Your task to perform on an android device: toggle improve location accuracy Image 0: 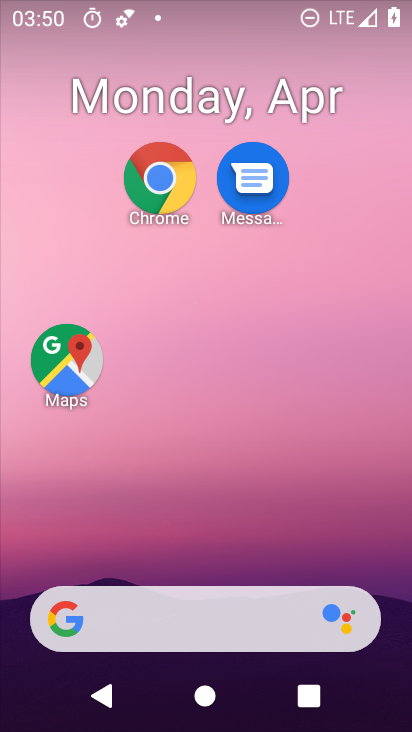
Step 0: drag from (246, 506) to (351, 1)
Your task to perform on an android device: toggle improve location accuracy Image 1: 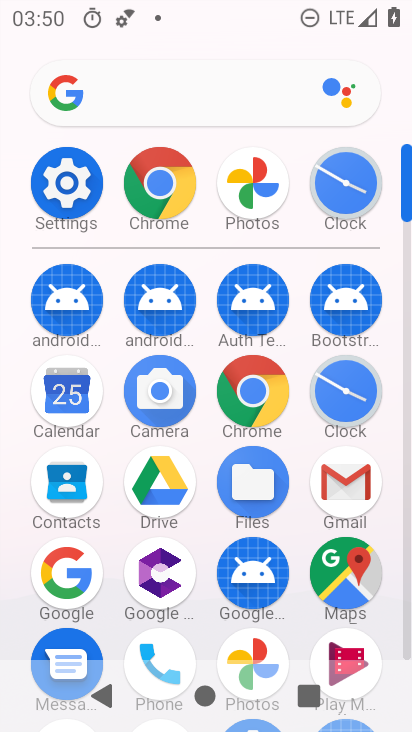
Step 1: drag from (284, 631) to (300, 53)
Your task to perform on an android device: toggle improve location accuracy Image 2: 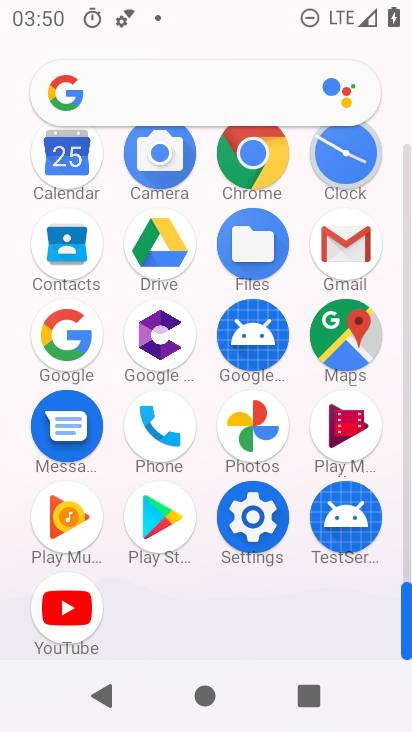
Step 2: click (263, 510)
Your task to perform on an android device: toggle improve location accuracy Image 3: 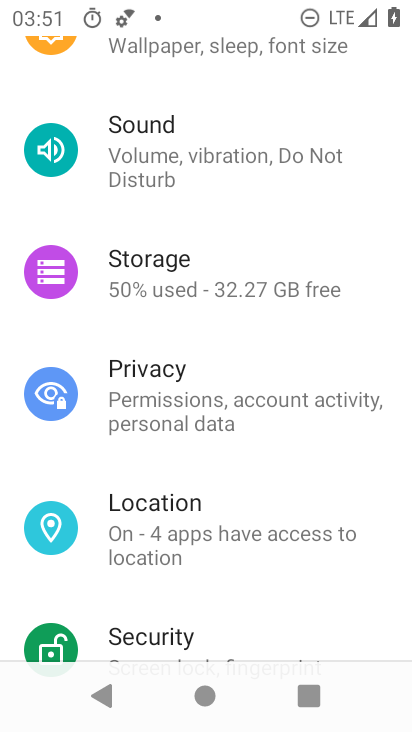
Step 3: click (235, 532)
Your task to perform on an android device: toggle improve location accuracy Image 4: 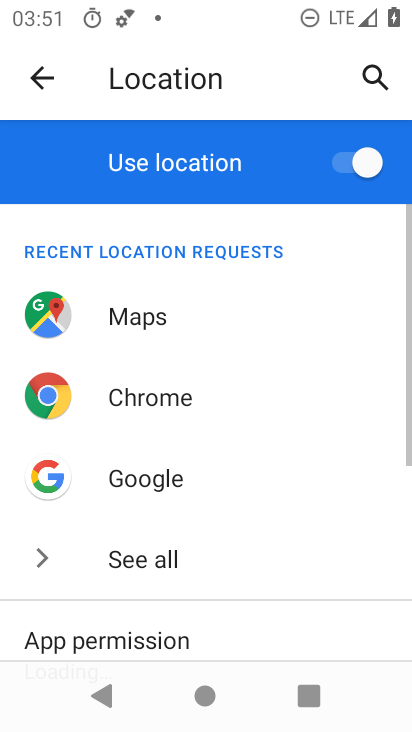
Step 4: drag from (244, 624) to (291, 62)
Your task to perform on an android device: toggle improve location accuracy Image 5: 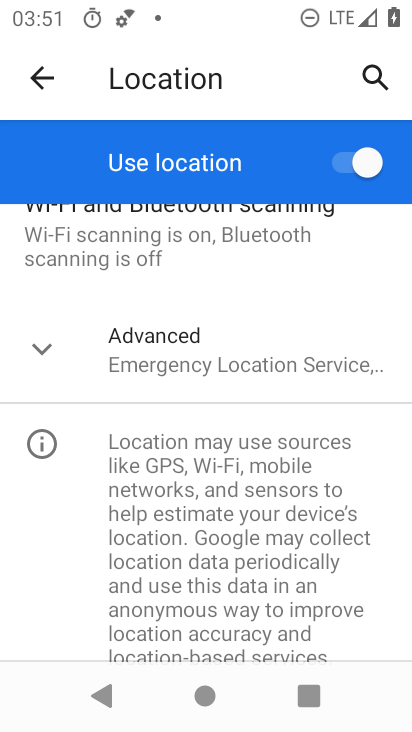
Step 5: click (268, 369)
Your task to perform on an android device: toggle improve location accuracy Image 6: 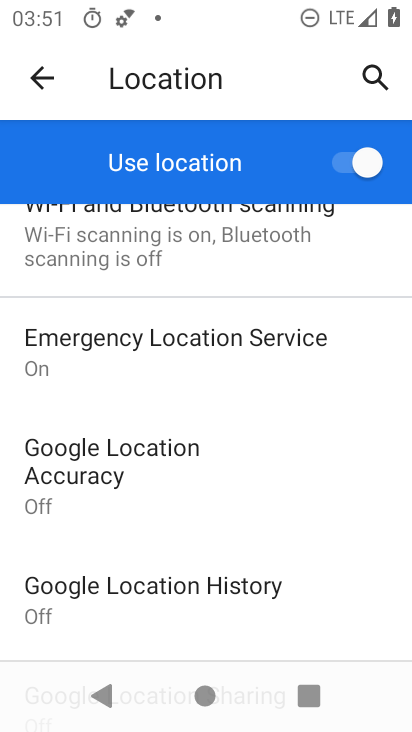
Step 6: click (170, 464)
Your task to perform on an android device: toggle improve location accuracy Image 7: 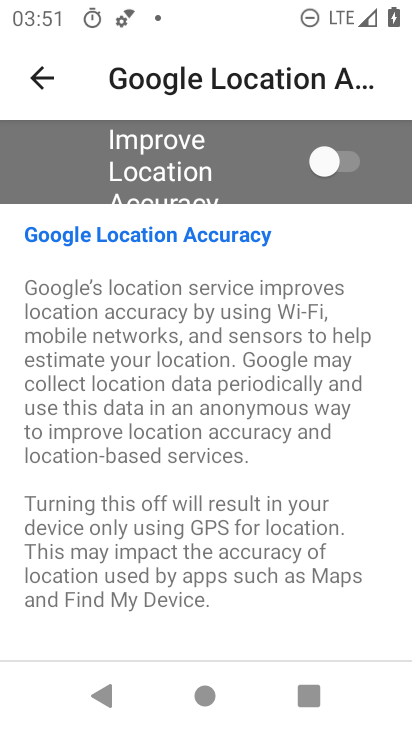
Step 7: click (341, 164)
Your task to perform on an android device: toggle improve location accuracy Image 8: 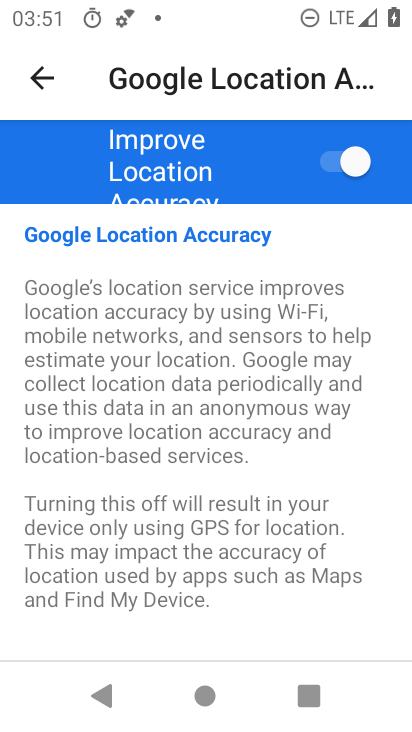
Step 8: task complete